Your task to perform on an android device: turn on location history Image 0: 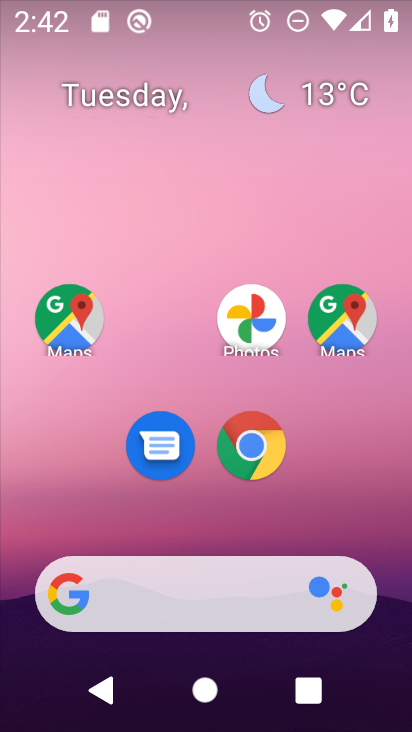
Step 0: drag from (395, 537) to (397, 173)
Your task to perform on an android device: turn on location history Image 1: 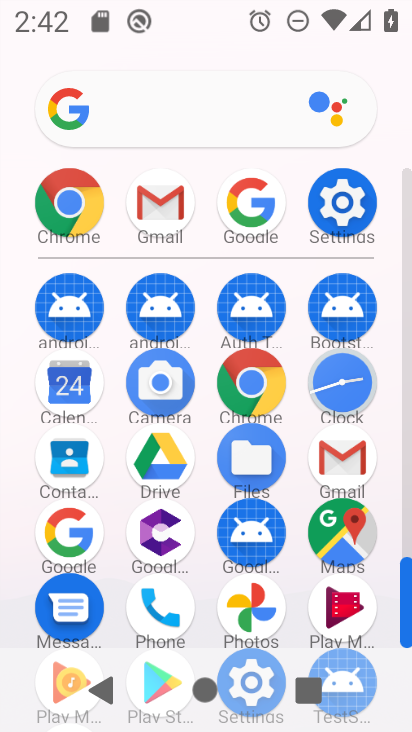
Step 1: click (350, 217)
Your task to perform on an android device: turn on location history Image 2: 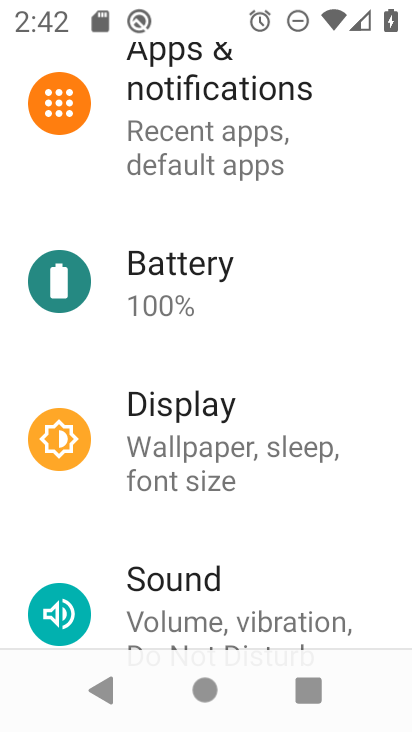
Step 2: drag from (369, 209) to (370, 307)
Your task to perform on an android device: turn on location history Image 3: 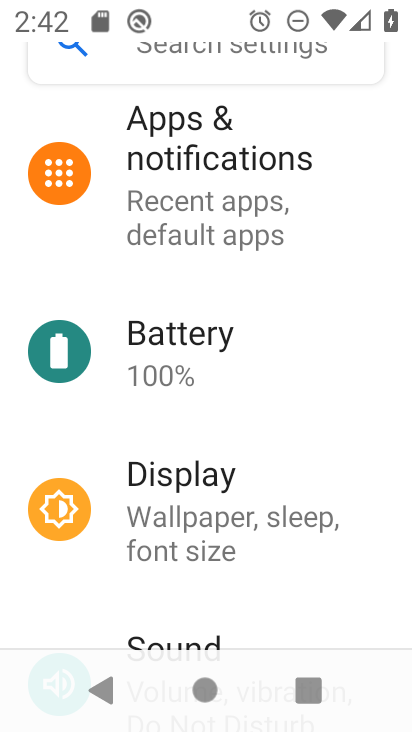
Step 3: drag from (368, 196) to (368, 296)
Your task to perform on an android device: turn on location history Image 4: 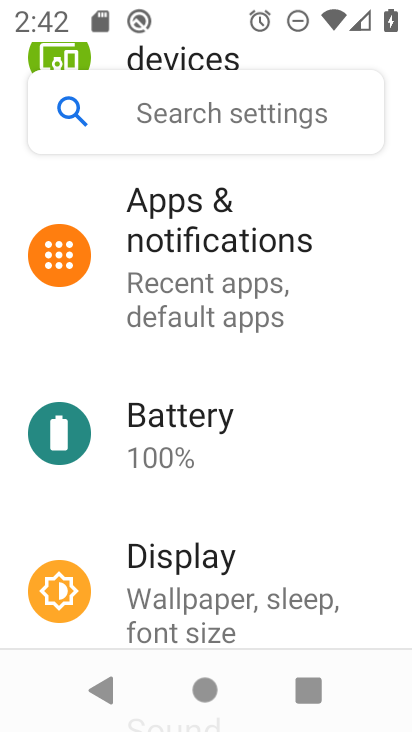
Step 4: drag from (369, 189) to (370, 333)
Your task to perform on an android device: turn on location history Image 5: 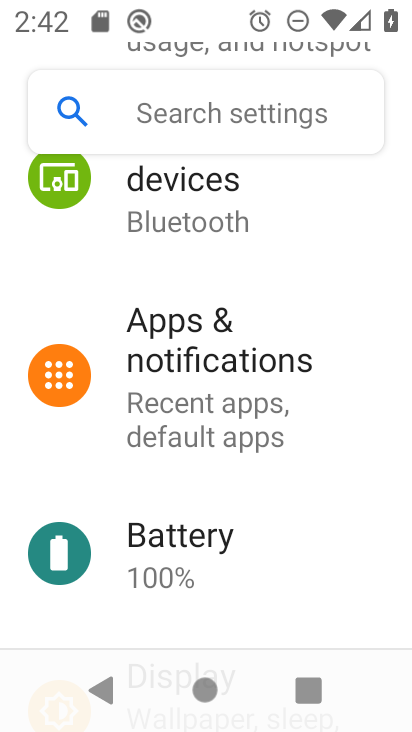
Step 5: drag from (368, 202) to (363, 342)
Your task to perform on an android device: turn on location history Image 6: 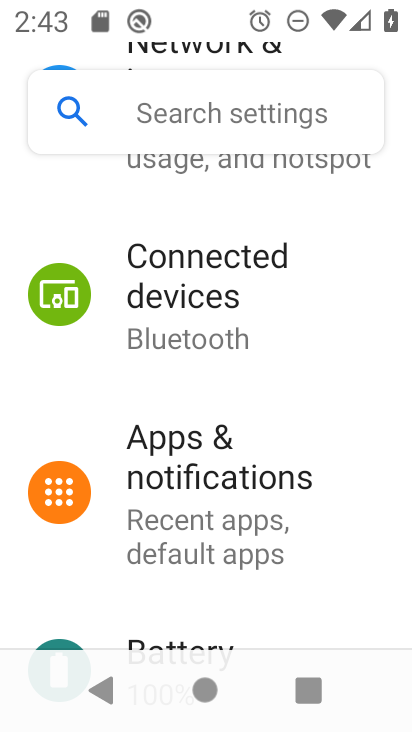
Step 6: drag from (364, 195) to (373, 434)
Your task to perform on an android device: turn on location history Image 7: 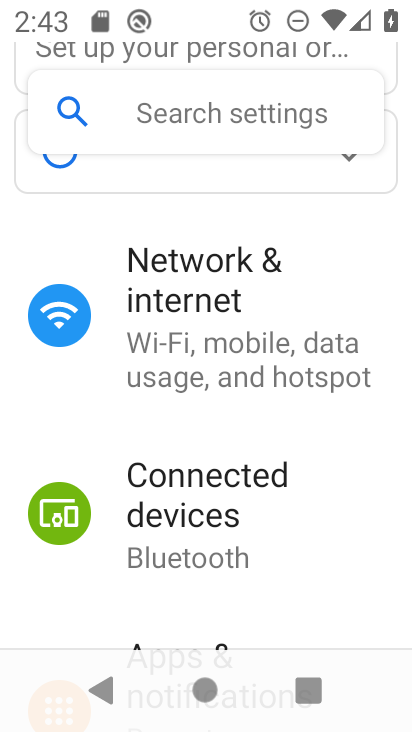
Step 7: drag from (382, 489) to (384, 376)
Your task to perform on an android device: turn on location history Image 8: 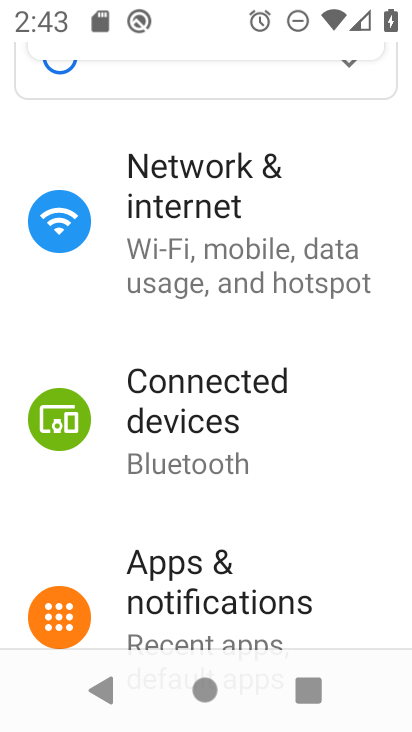
Step 8: drag from (380, 481) to (378, 359)
Your task to perform on an android device: turn on location history Image 9: 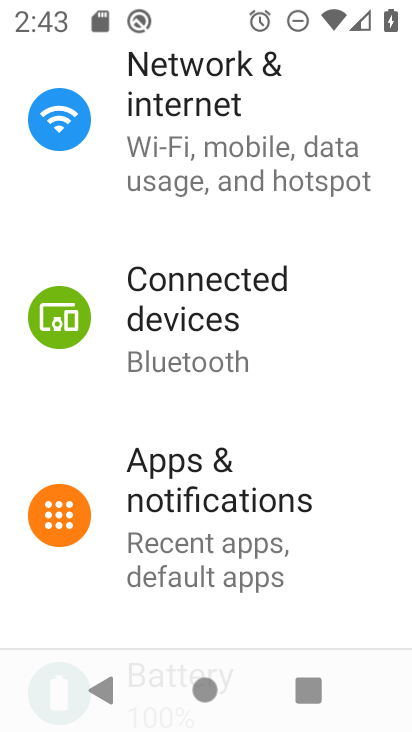
Step 9: drag from (370, 426) to (366, 318)
Your task to perform on an android device: turn on location history Image 10: 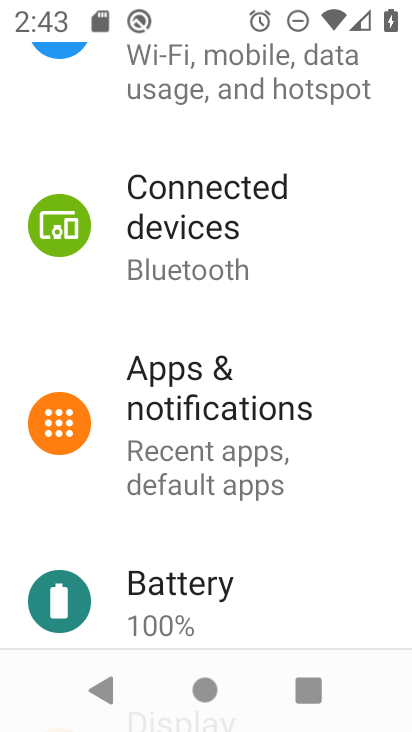
Step 10: drag from (360, 459) to (360, 358)
Your task to perform on an android device: turn on location history Image 11: 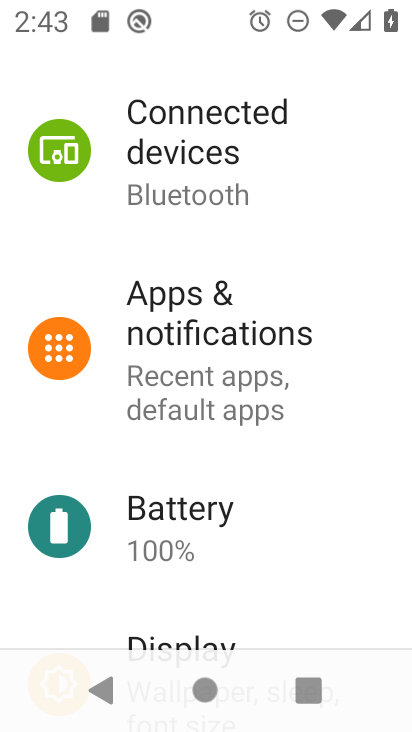
Step 11: drag from (366, 490) to (367, 393)
Your task to perform on an android device: turn on location history Image 12: 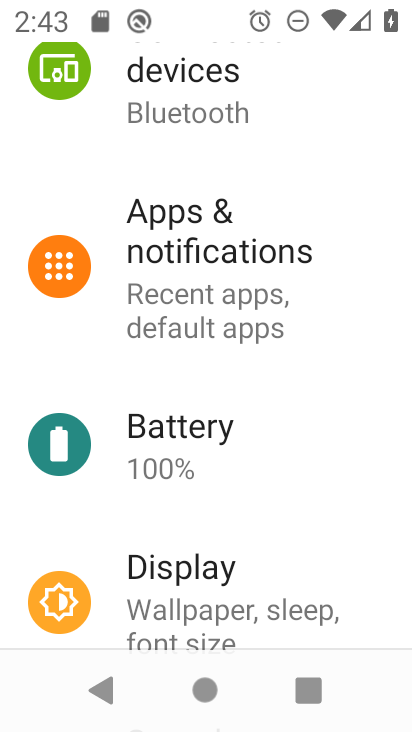
Step 12: drag from (362, 480) to (361, 405)
Your task to perform on an android device: turn on location history Image 13: 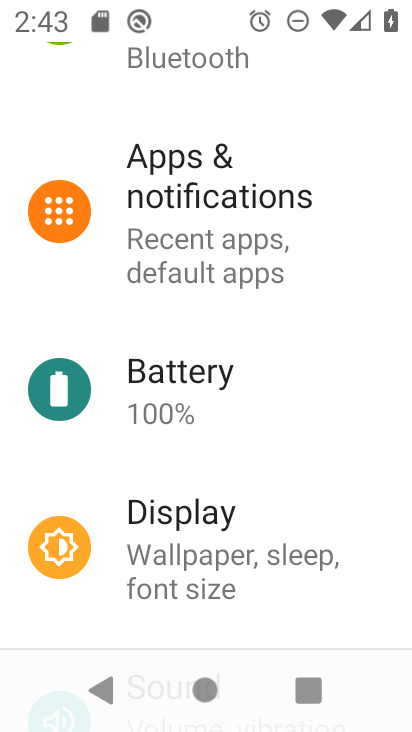
Step 13: drag from (364, 498) to (369, 420)
Your task to perform on an android device: turn on location history Image 14: 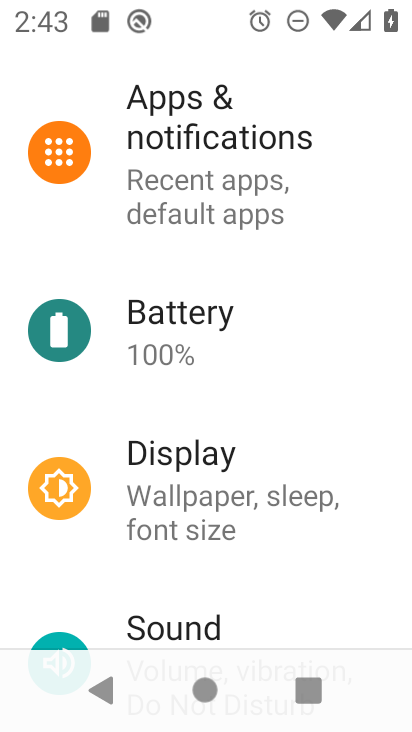
Step 14: drag from (369, 527) to (370, 441)
Your task to perform on an android device: turn on location history Image 15: 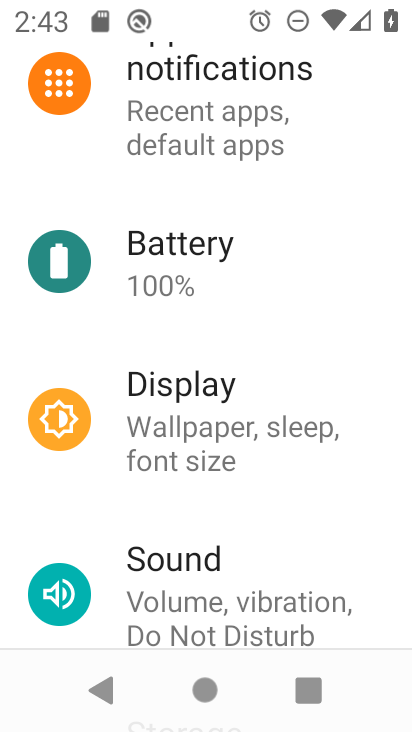
Step 15: drag from (366, 519) to (369, 453)
Your task to perform on an android device: turn on location history Image 16: 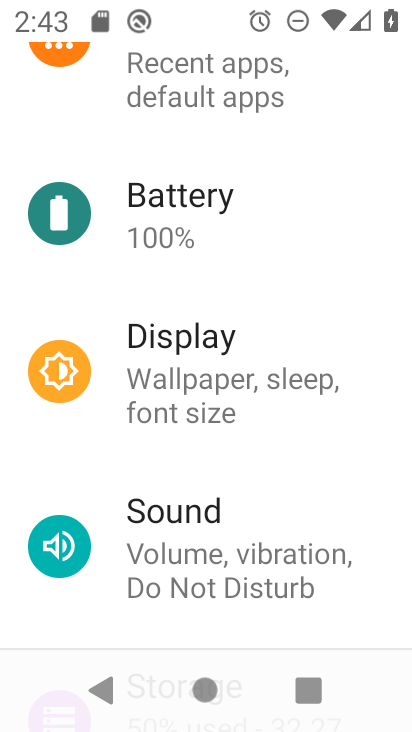
Step 16: drag from (366, 547) to (373, 467)
Your task to perform on an android device: turn on location history Image 17: 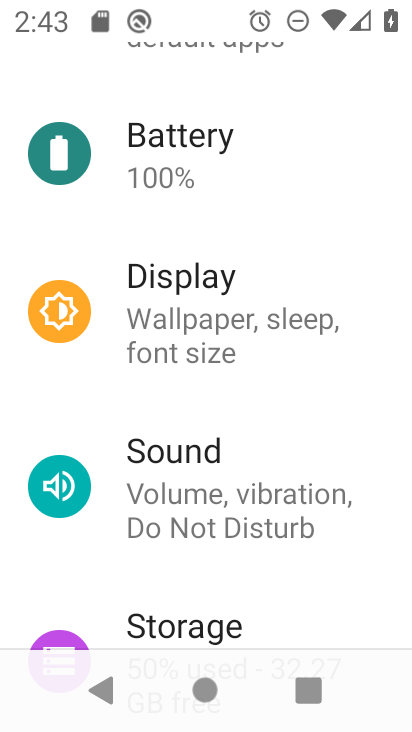
Step 17: drag from (368, 539) to (369, 448)
Your task to perform on an android device: turn on location history Image 18: 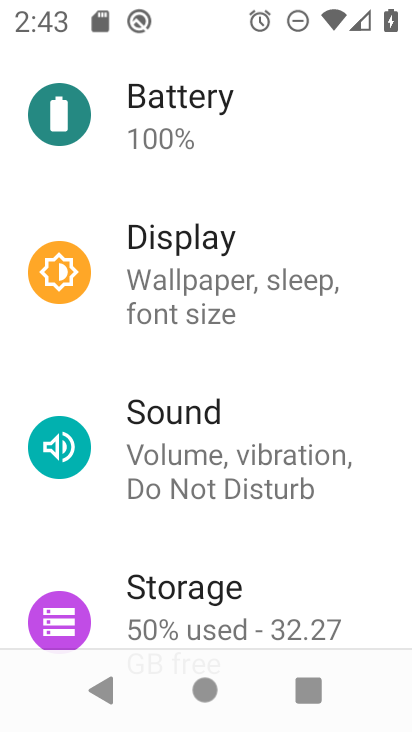
Step 18: drag from (361, 540) to (372, 463)
Your task to perform on an android device: turn on location history Image 19: 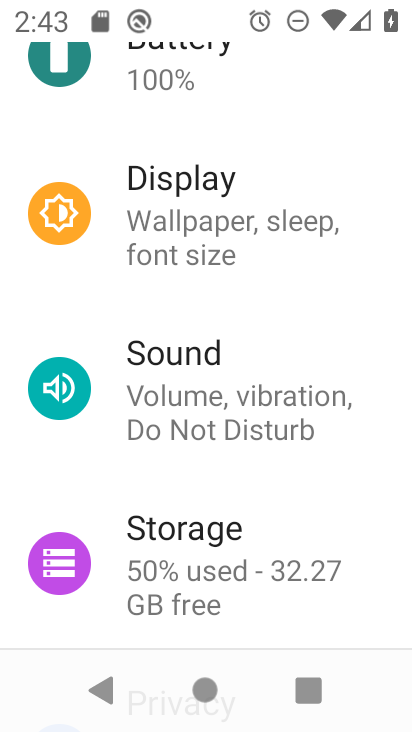
Step 19: drag from (373, 556) to (376, 479)
Your task to perform on an android device: turn on location history Image 20: 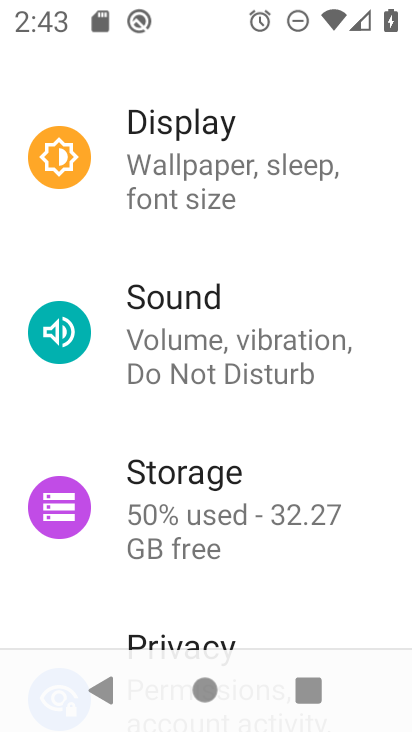
Step 20: drag from (375, 572) to (375, 489)
Your task to perform on an android device: turn on location history Image 21: 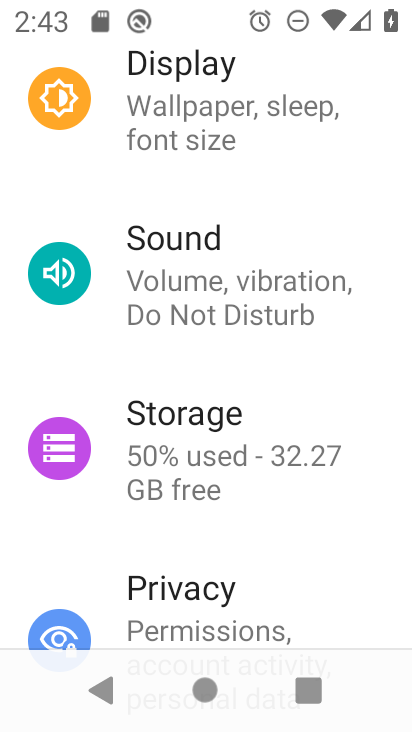
Step 21: drag from (374, 569) to (380, 491)
Your task to perform on an android device: turn on location history Image 22: 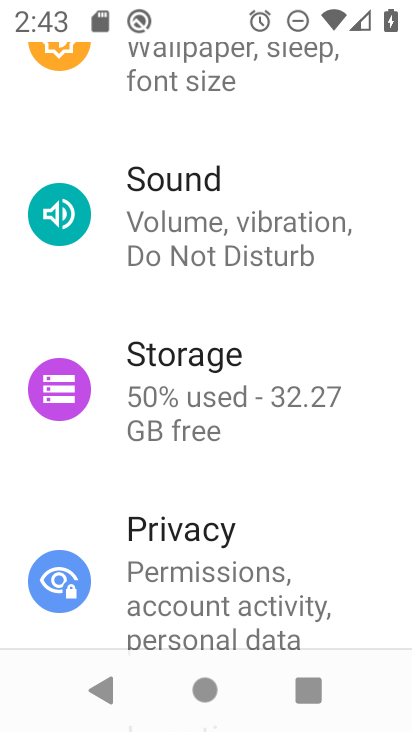
Step 22: drag from (375, 583) to (376, 505)
Your task to perform on an android device: turn on location history Image 23: 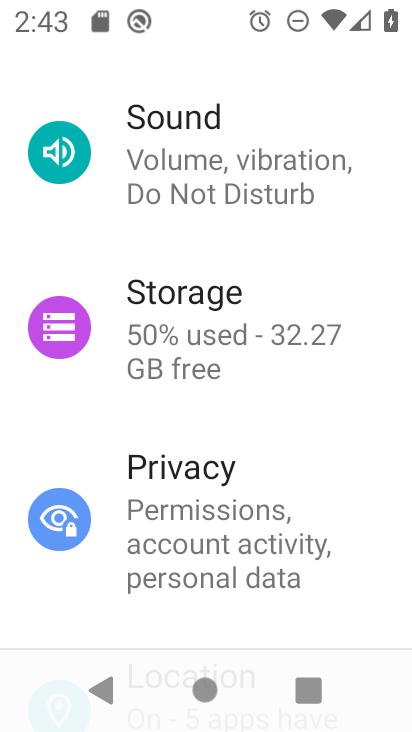
Step 23: drag from (365, 583) to (371, 479)
Your task to perform on an android device: turn on location history Image 24: 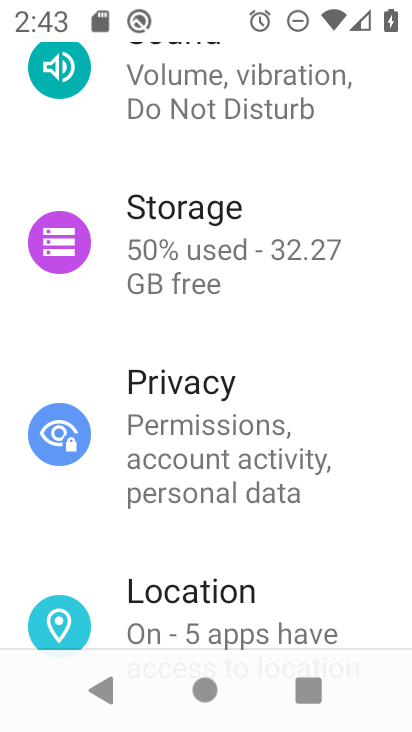
Step 24: drag from (361, 570) to (369, 478)
Your task to perform on an android device: turn on location history Image 25: 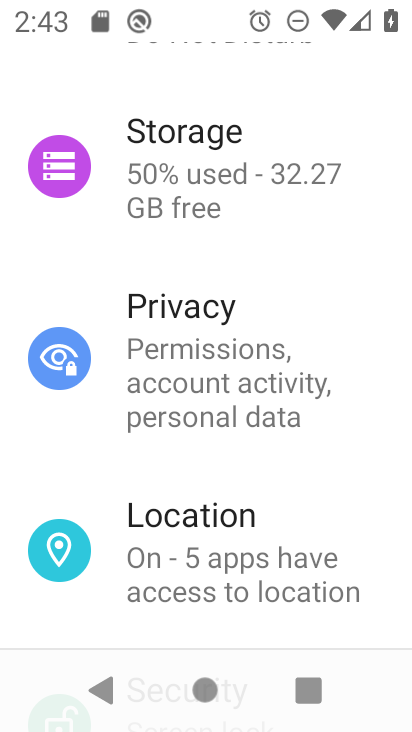
Step 25: drag from (363, 559) to (371, 484)
Your task to perform on an android device: turn on location history Image 26: 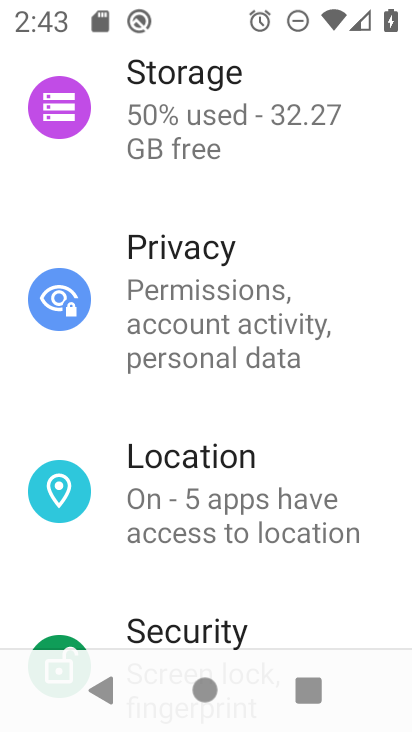
Step 26: click (264, 499)
Your task to perform on an android device: turn on location history Image 27: 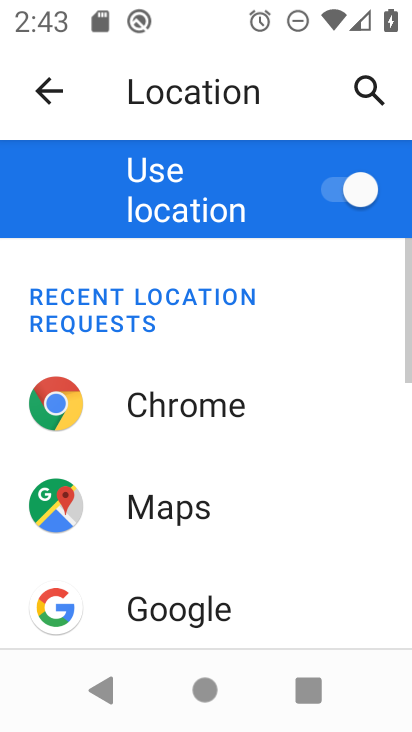
Step 27: drag from (353, 534) to (362, 466)
Your task to perform on an android device: turn on location history Image 28: 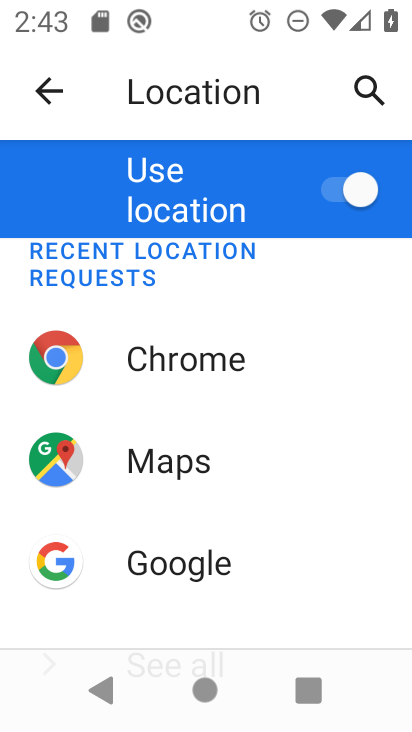
Step 28: drag from (364, 556) to (367, 470)
Your task to perform on an android device: turn on location history Image 29: 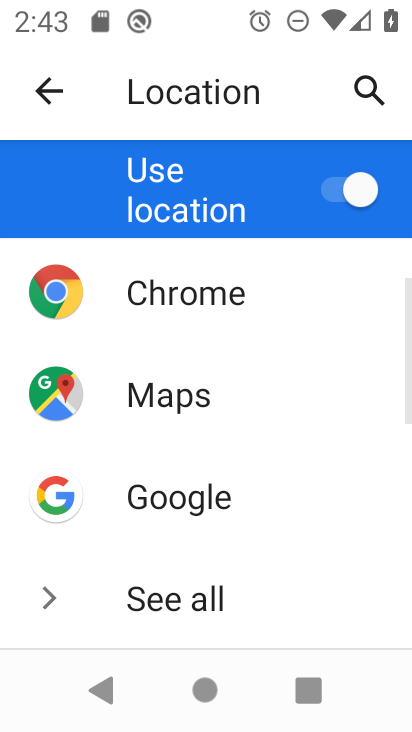
Step 29: drag from (365, 533) to (371, 450)
Your task to perform on an android device: turn on location history Image 30: 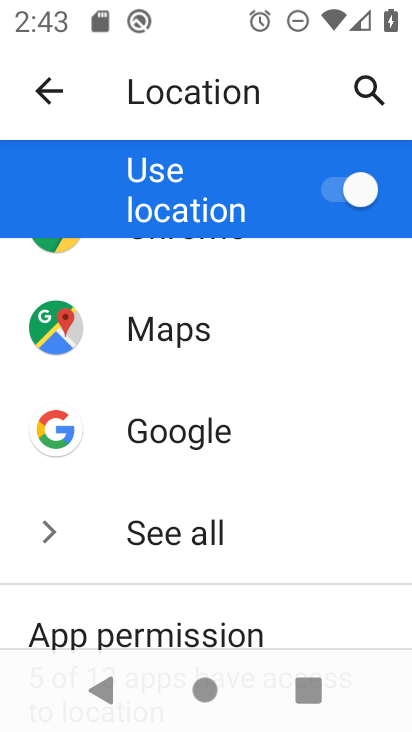
Step 30: drag from (371, 545) to (371, 472)
Your task to perform on an android device: turn on location history Image 31: 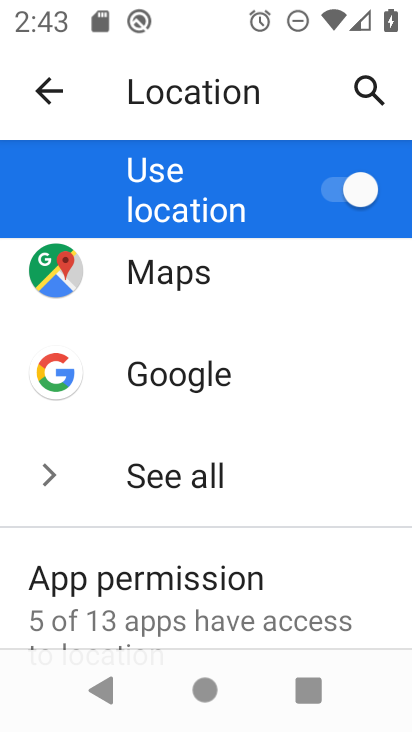
Step 31: drag from (358, 562) to (366, 483)
Your task to perform on an android device: turn on location history Image 32: 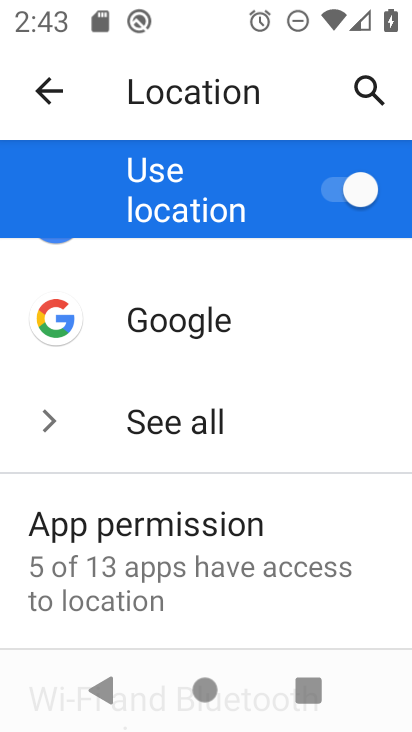
Step 32: drag from (368, 517) to (368, 421)
Your task to perform on an android device: turn on location history Image 33: 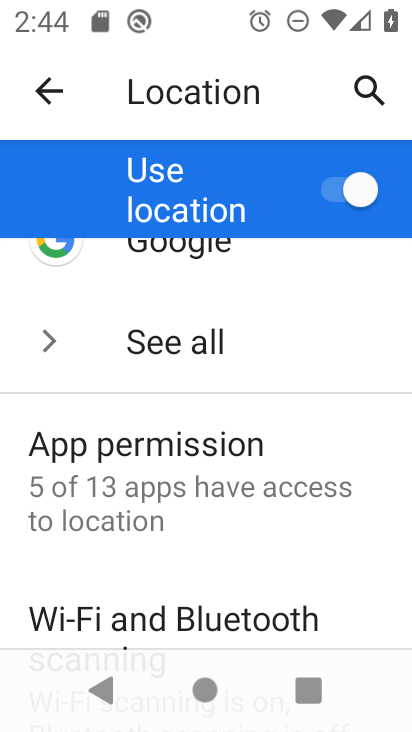
Step 33: drag from (368, 534) to (376, 448)
Your task to perform on an android device: turn on location history Image 34: 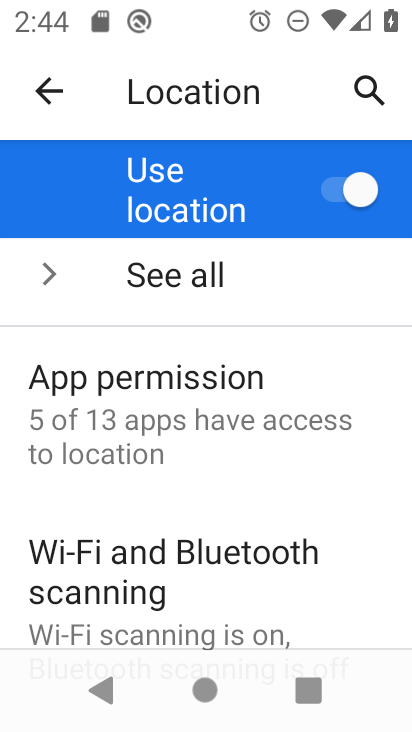
Step 34: drag from (376, 515) to (380, 430)
Your task to perform on an android device: turn on location history Image 35: 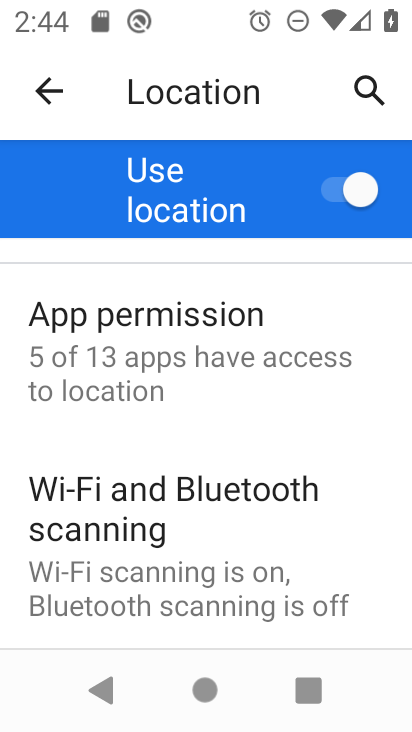
Step 35: click (380, 495)
Your task to perform on an android device: turn on location history Image 36: 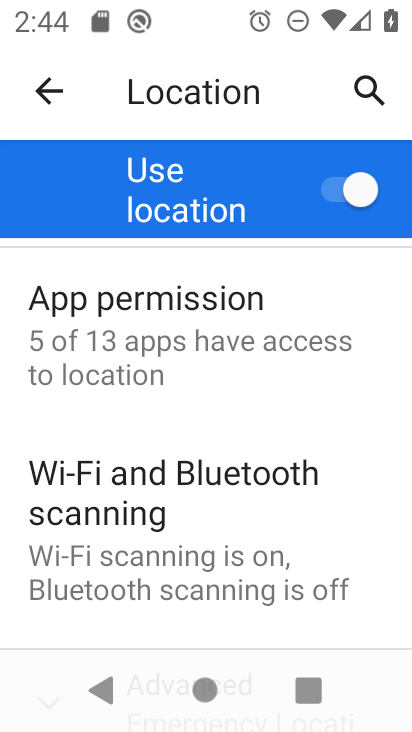
Step 36: drag from (372, 519) to (369, 370)
Your task to perform on an android device: turn on location history Image 37: 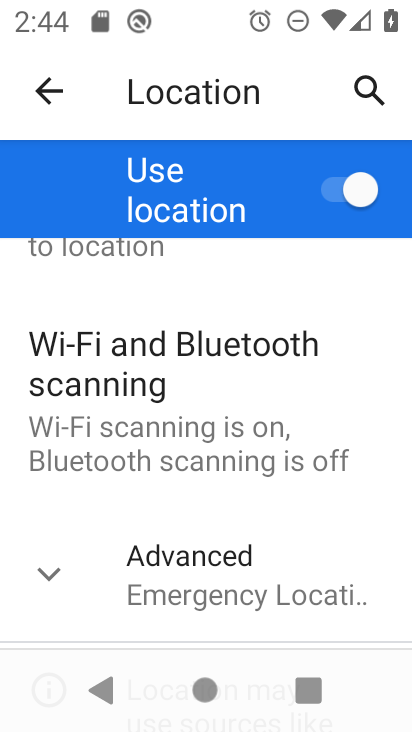
Step 37: drag from (358, 534) to (363, 400)
Your task to perform on an android device: turn on location history Image 38: 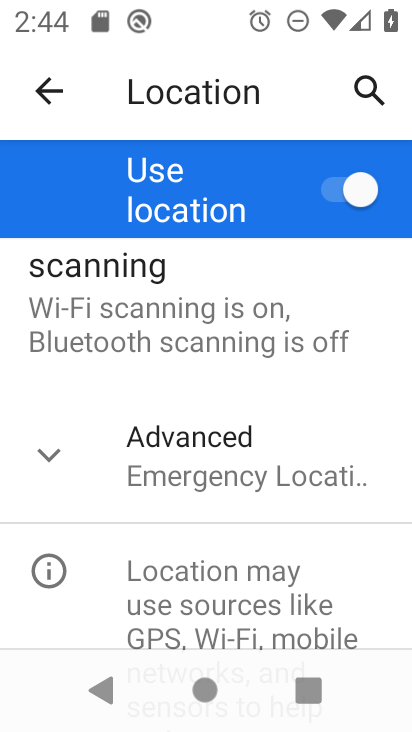
Step 38: click (341, 472)
Your task to perform on an android device: turn on location history Image 39: 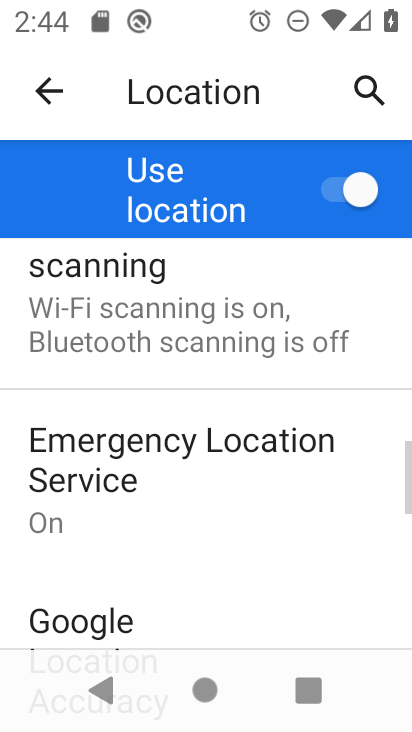
Step 39: drag from (352, 514) to (353, 432)
Your task to perform on an android device: turn on location history Image 40: 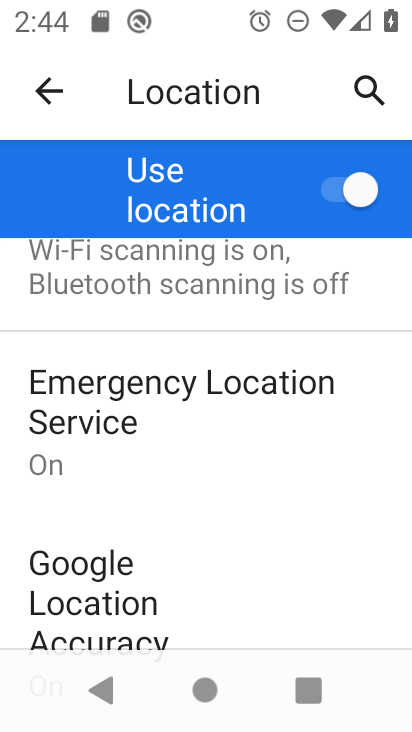
Step 40: drag from (333, 537) to (333, 423)
Your task to perform on an android device: turn on location history Image 41: 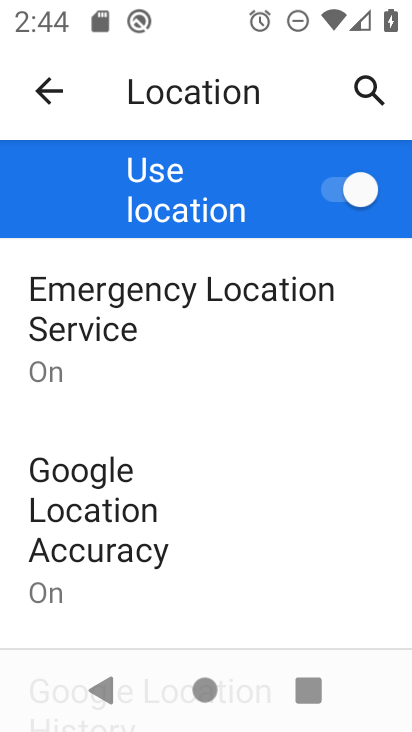
Step 41: drag from (344, 528) to (344, 428)
Your task to perform on an android device: turn on location history Image 42: 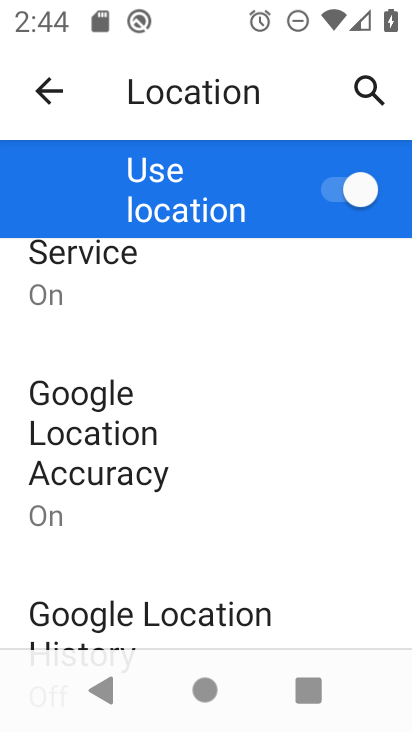
Step 42: drag from (332, 534) to (332, 424)
Your task to perform on an android device: turn on location history Image 43: 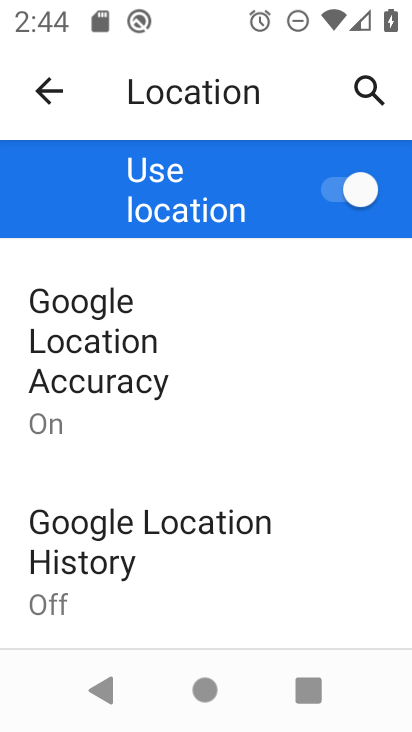
Step 43: click (194, 545)
Your task to perform on an android device: turn on location history Image 44: 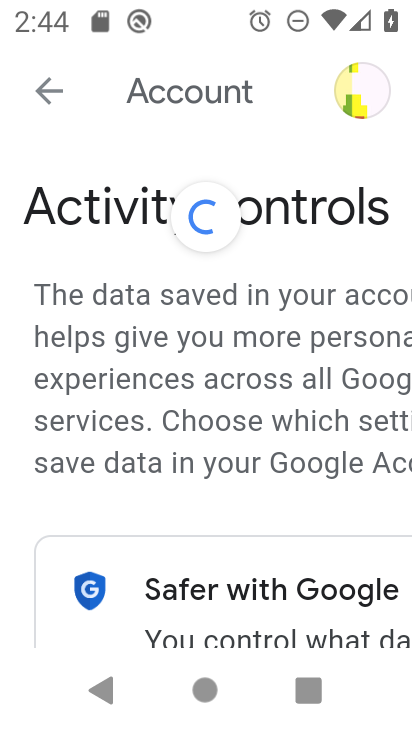
Step 44: drag from (324, 521) to (310, 403)
Your task to perform on an android device: turn on location history Image 45: 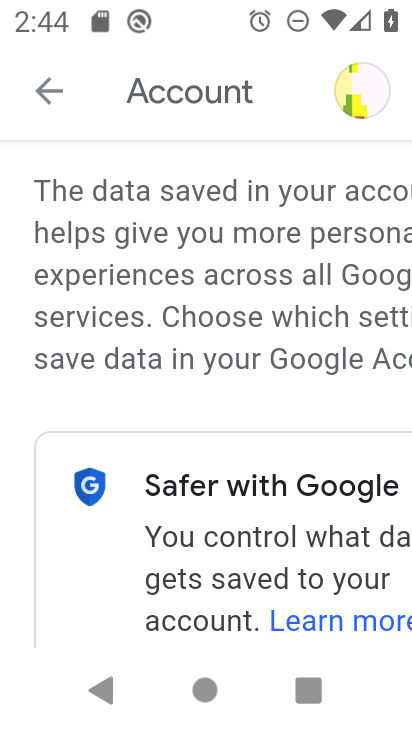
Step 45: drag from (305, 553) to (310, 412)
Your task to perform on an android device: turn on location history Image 46: 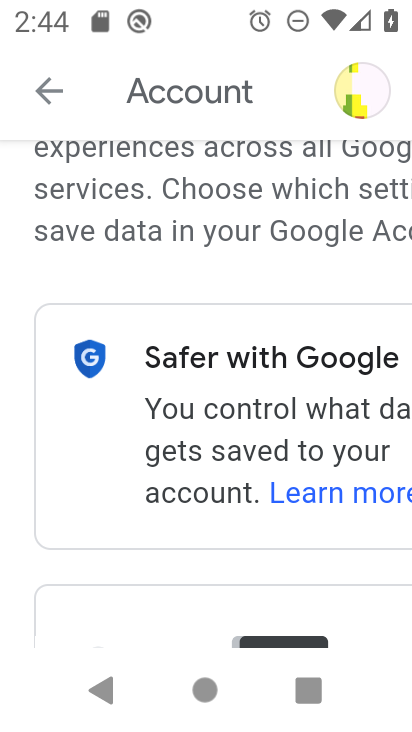
Step 46: drag from (317, 534) to (318, 453)
Your task to perform on an android device: turn on location history Image 47: 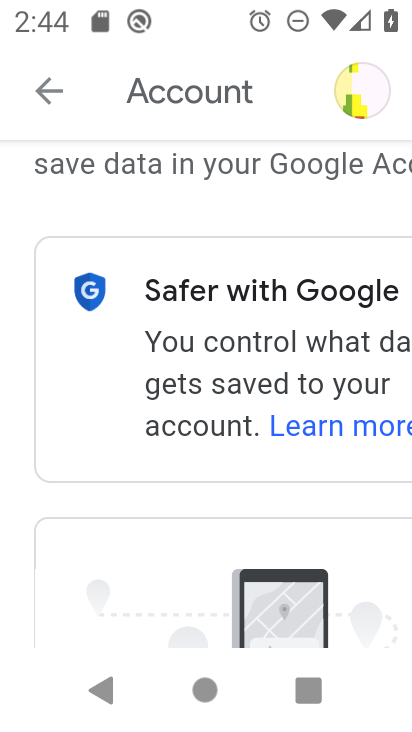
Step 47: drag from (325, 555) to (328, 469)
Your task to perform on an android device: turn on location history Image 48: 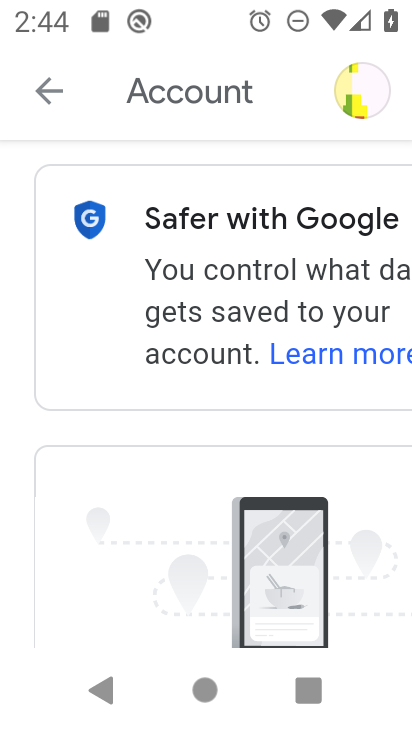
Step 48: drag from (327, 544) to (330, 381)
Your task to perform on an android device: turn on location history Image 49: 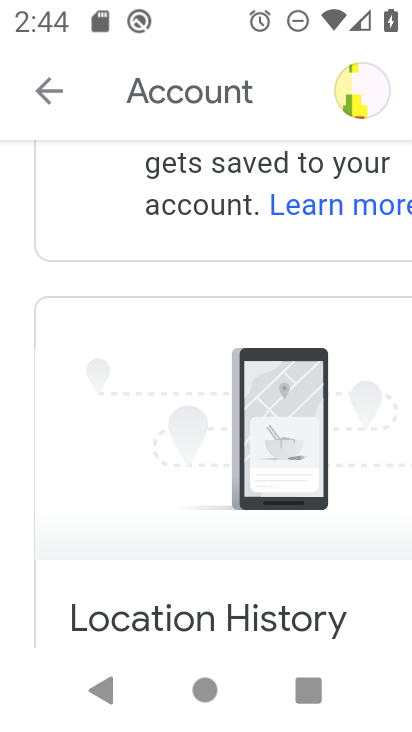
Step 49: drag from (320, 587) to (328, 478)
Your task to perform on an android device: turn on location history Image 50: 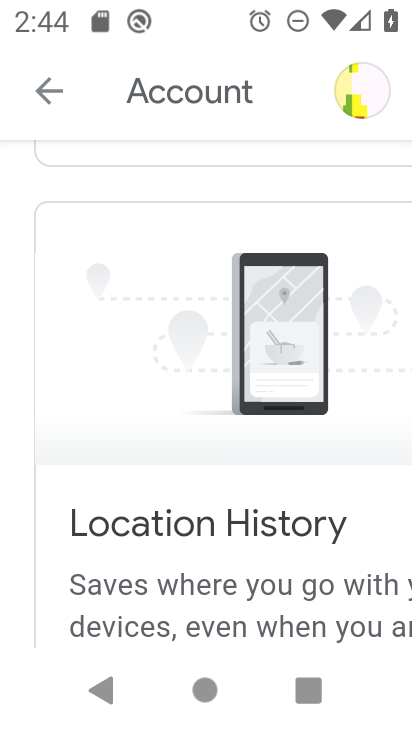
Step 50: drag from (333, 559) to (338, 422)
Your task to perform on an android device: turn on location history Image 51: 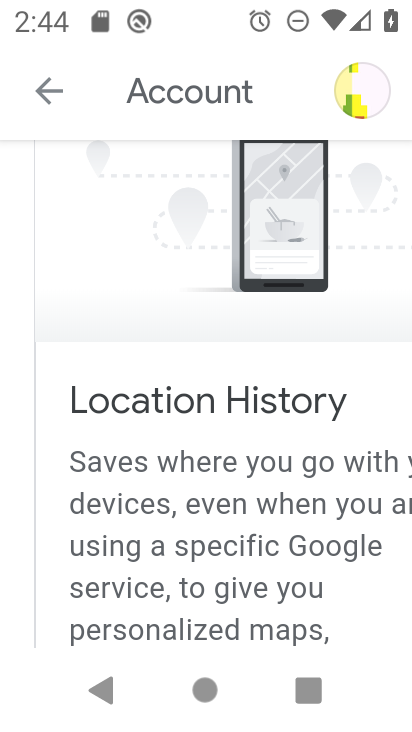
Step 51: drag from (340, 554) to (343, 461)
Your task to perform on an android device: turn on location history Image 52: 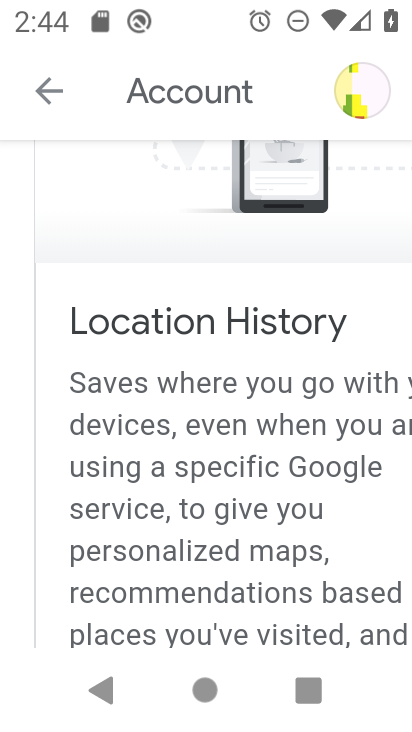
Step 52: drag from (344, 547) to (345, 447)
Your task to perform on an android device: turn on location history Image 53: 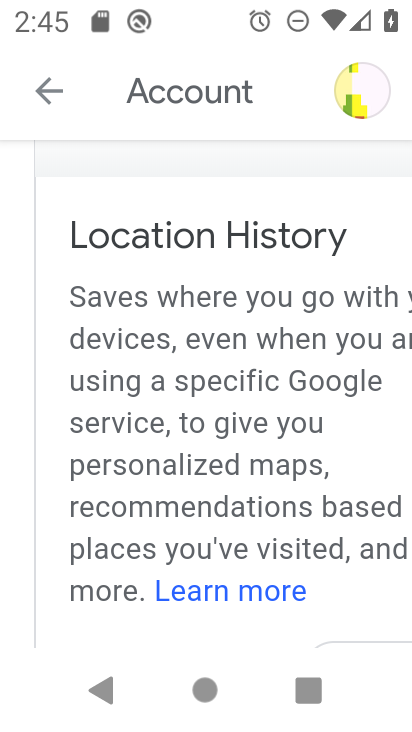
Step 53: drag from (339, 532) to (324, 312)
Your task to perform on an android device: turn on location history Image 54: 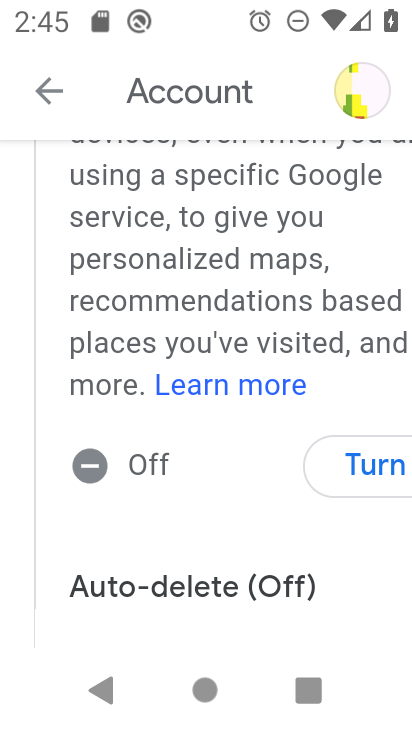
Step 54: click (365, 466)
Your task to perform on an android device: turn on location history Image 55: 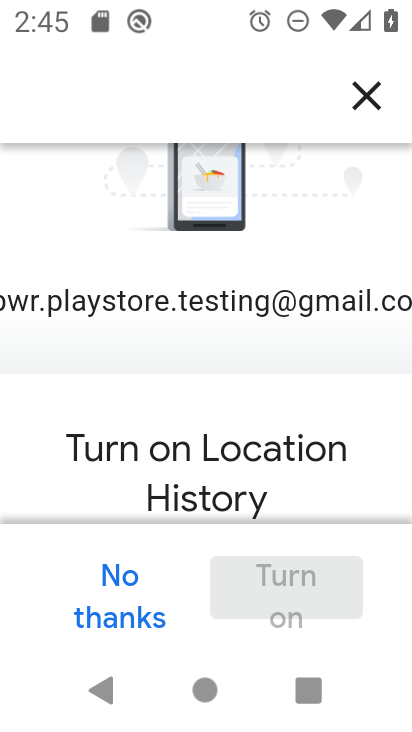
Step 55: drag from (275, 471) to (279, 317)
Your task to perform on an android device: turn on location history Image 56: 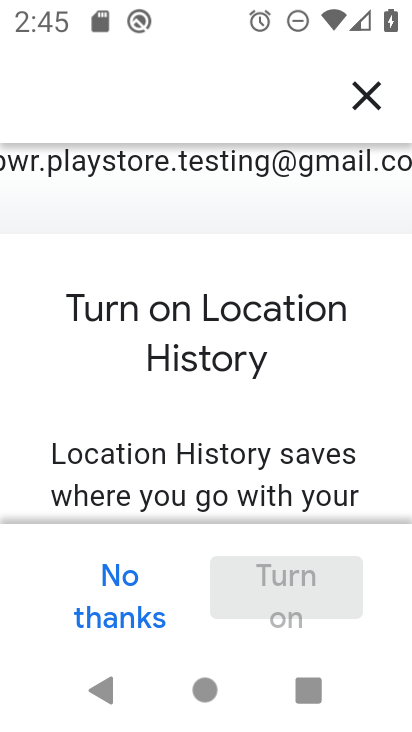
Step 56: drag from (280, 471) to (287, 364)
Your task to perform on an android device: turn on location history Image 57: 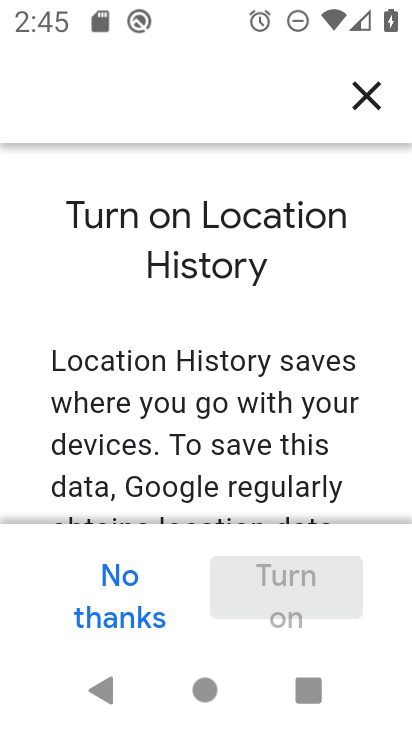
Step 57: drag from (297, 475) to (304, 335)
Your task to perform on an android device: turn on location history Image 58: 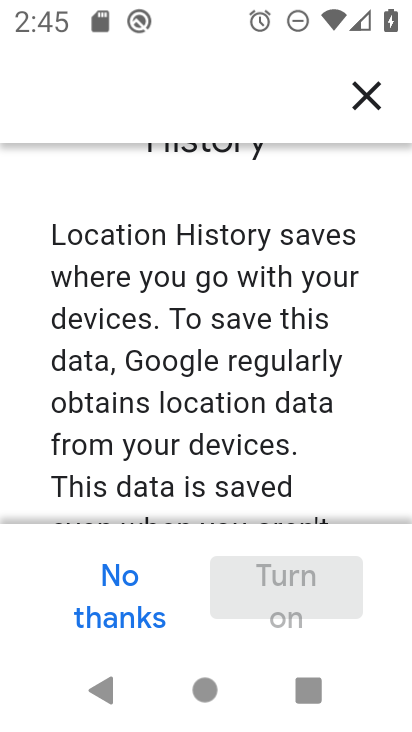
Step 58: drag from (275, 483) to (278, 382)
Your task to perform on an android device: turn on location history Image 59: 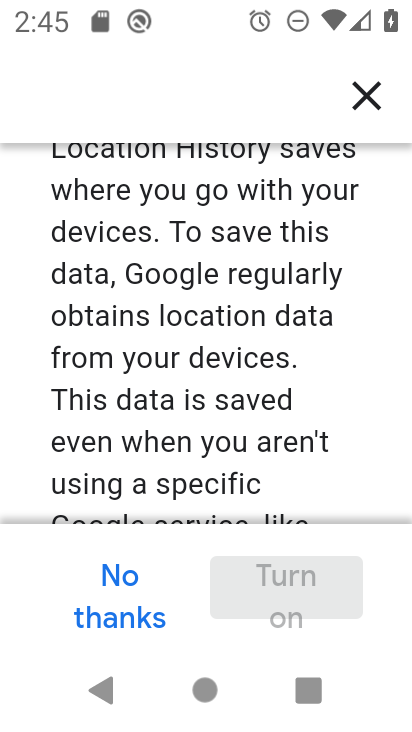
Step 59: drag from (278, 492) to (279, 382)
Your task to perform on an android device: turn on location history Image 60: 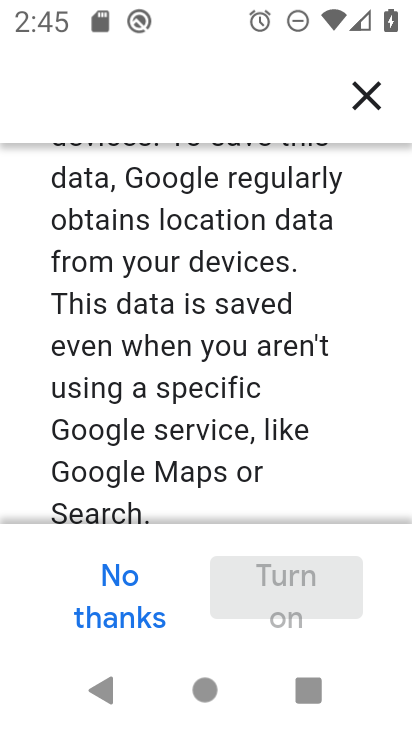
Step 60: drag from (301, 477) to (303, 369)
Your task to perform on an android device: turn on location history Image 61: 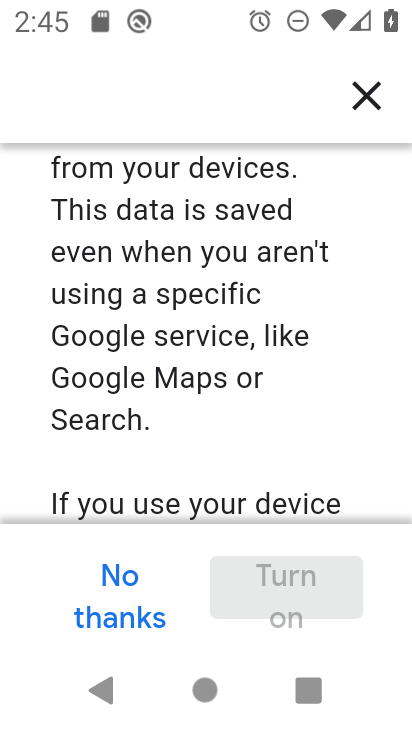
Step 61: drag from (303, 460) to (305, 314)
Your task to perform on an android device: turn on location history Image 62: 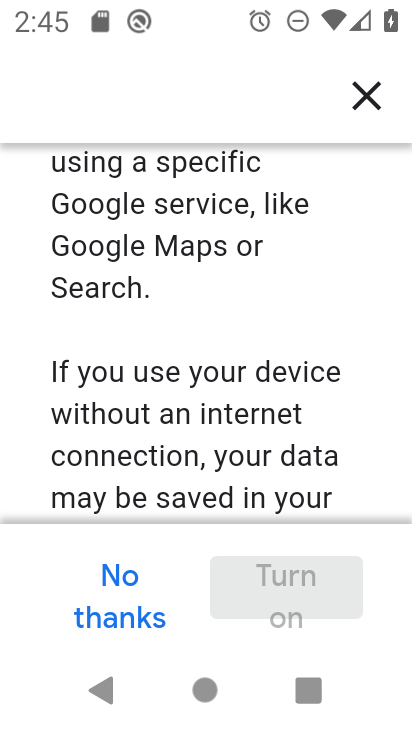
Step 62: drag from (381, 442) to (369, 308)
Your task to perform on an android device: turn on location history Image 63: 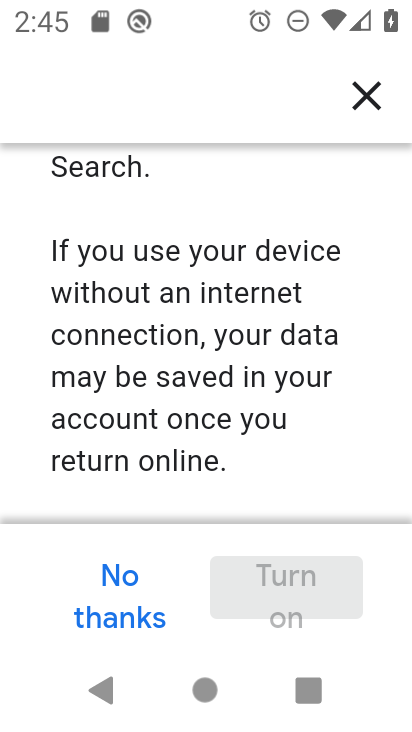
Step 63: drag from (354, 451) to (361, 307)
Your task to perform on an android device: turn on location history Image 64: 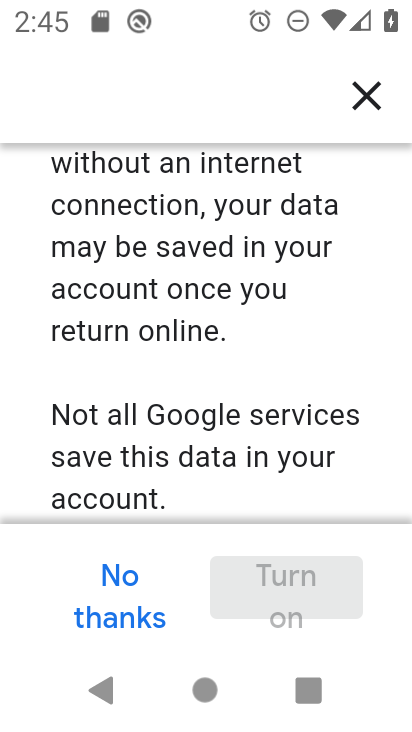
Step 64: drag from (360, 481) to (365, 324)
Your task to perform on an android device: turn on location history Image 65: 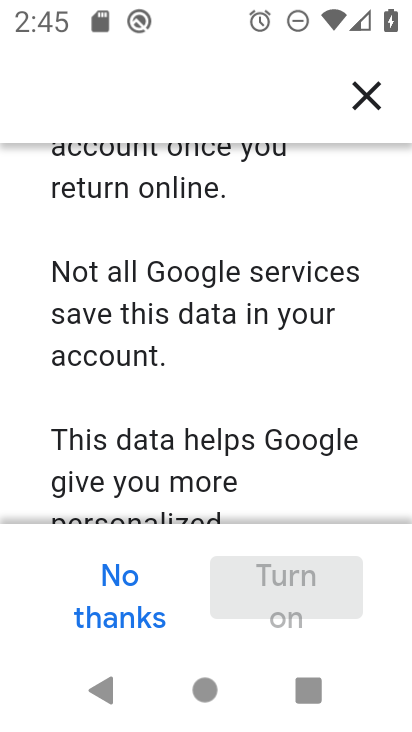
Step 65: drag from (367, 468) to (367, 307)
Your task to perform on an android device: turn on location history Image 66: 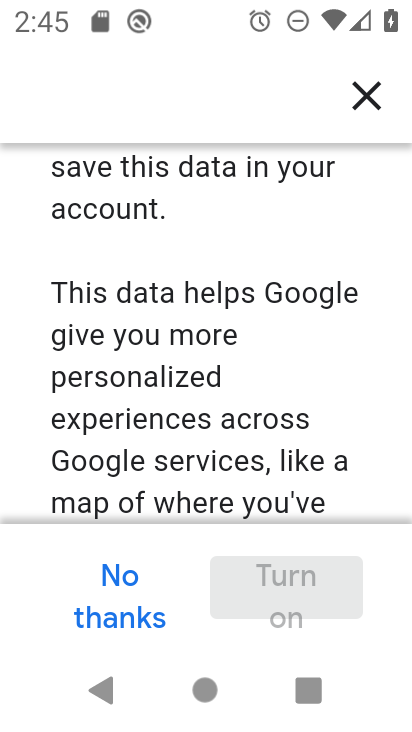
Step 66: drag from (366, 496) to (366, 304)
Your task to perform on an android device: turn on location history Image 67: 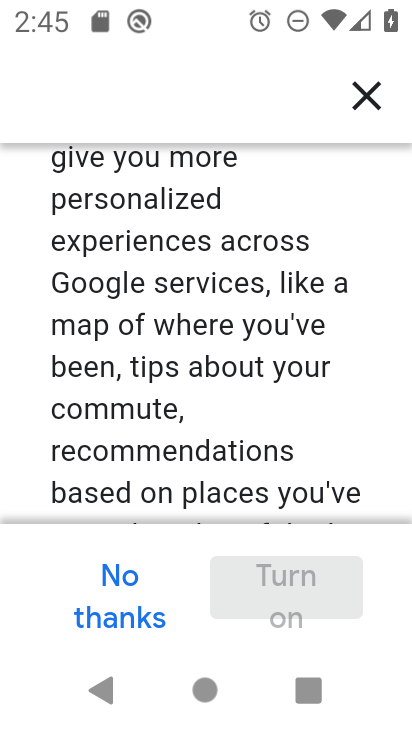
Step 67: drag from (384, 477) to (388, 259)
Your task to perform on an android device: turn on location history Image 68: 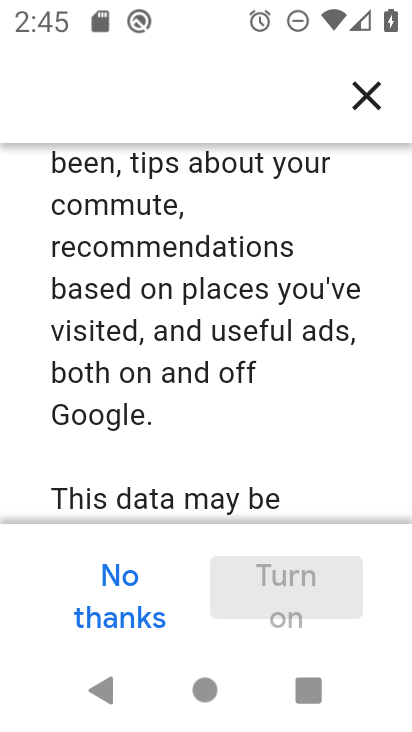
Step 68: drag from (354, 481) to (369, 272)
Your task to perform on an android device: turn on location history Image 69: 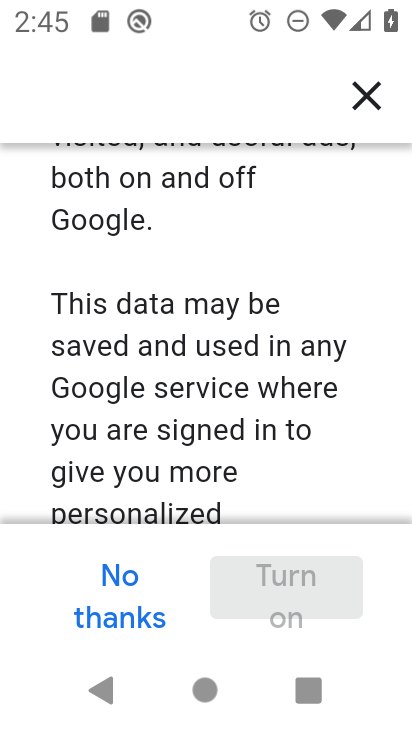
Step 69: drag from (342, 491) to (362, 308)
Your task to perform on an android device: turn on location history Image 70: 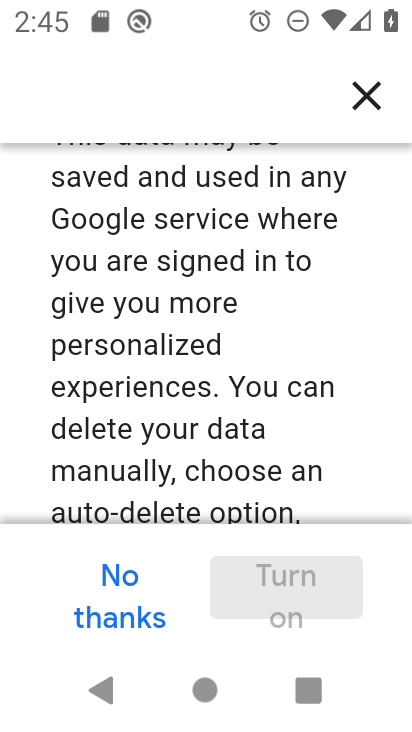
Step 70: drag from (367, 485) to (371, 256)
Your task to perform on an android device: turn on location history Image 71: 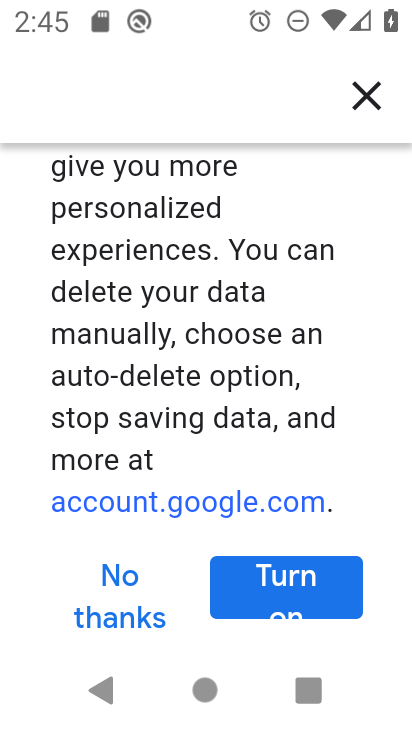
Step 71: click (311, 602)
Your task to perform on an android device: turn on location history Image 72: 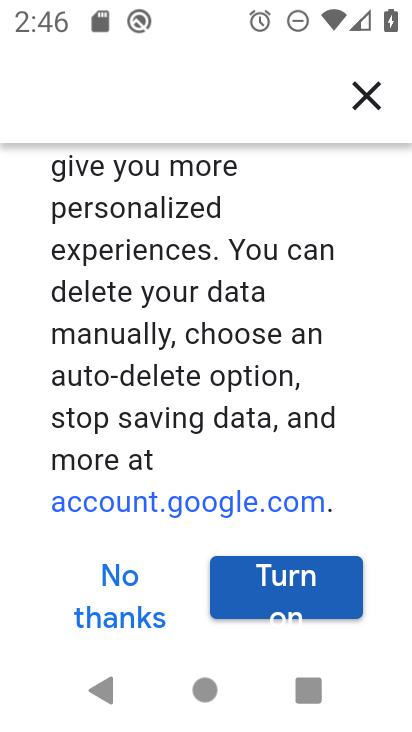
Step 72: click (322, 596)
Your task to perform on an android device: turn on location history Image 73: 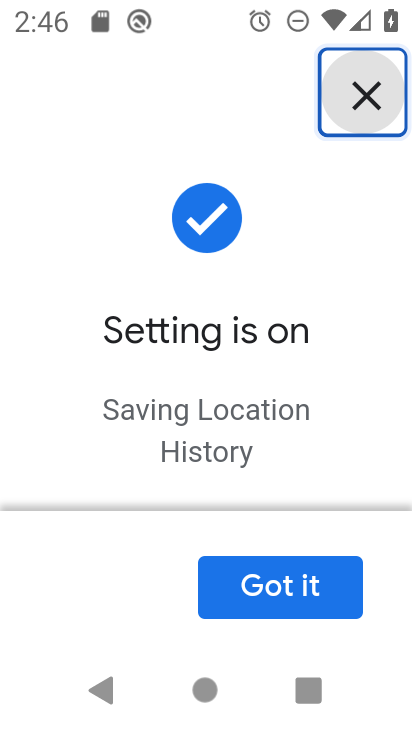
Step 73: task complete